Your task to perform on an android device: Open maps Image 0: 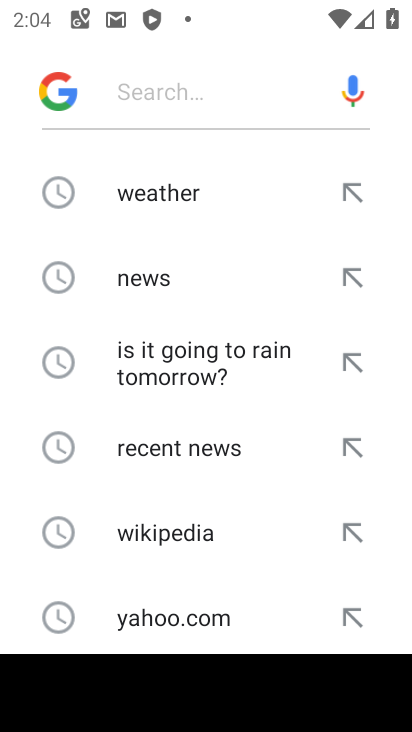
Step 0: press home button
Your task to perform on an android device: Open maps Image 1: 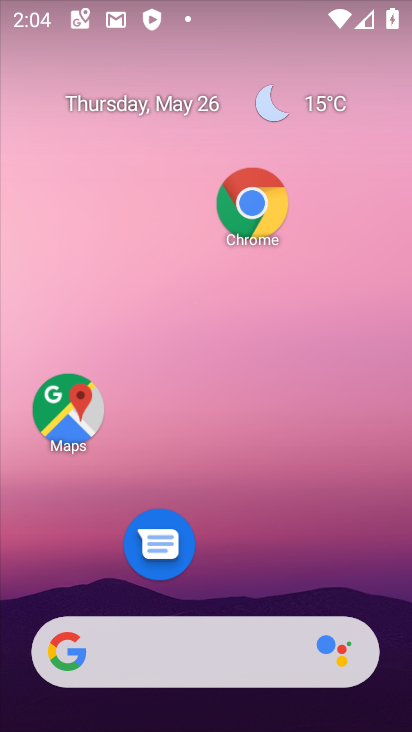
Step 1: click (62, 396)
Your task to perform on an android device: Open maps Image 2: 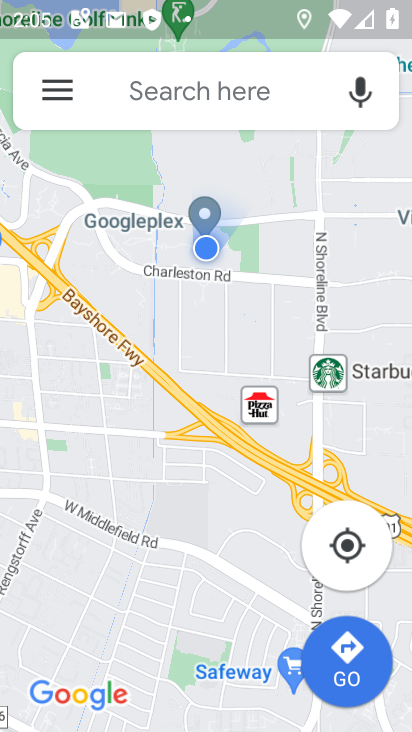
Step 2: task complete